Your task to perform on an android device: Open settings Image 0: 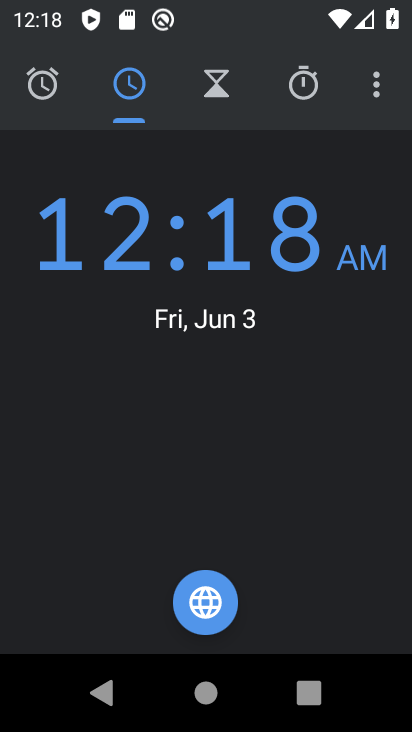
Step 0: press home button
Your task to perform on an android device: Open settings Image 1: 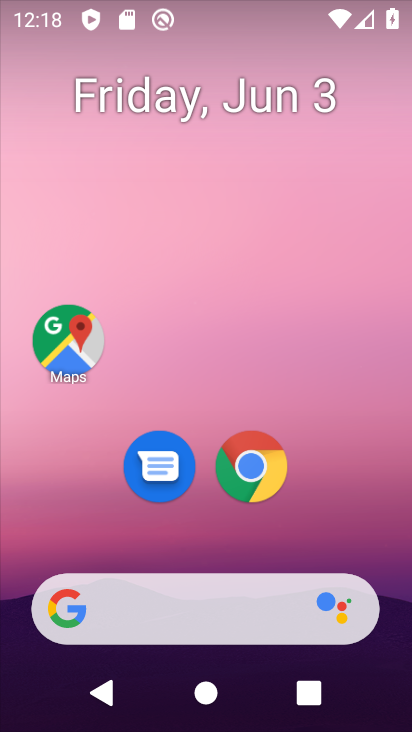
Step 1: drag from (172, 728) to (332, 60)
Your task to perform on an android device: Open settings Image 2: 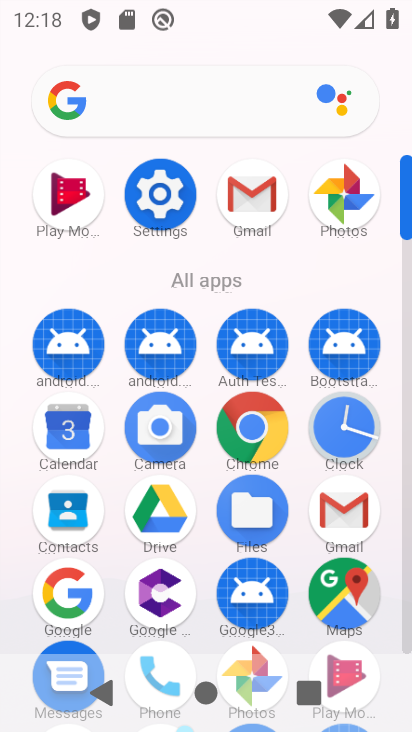
Step 2: click (160, 186)
Your task to perform on an android device: Open settings Image 3: 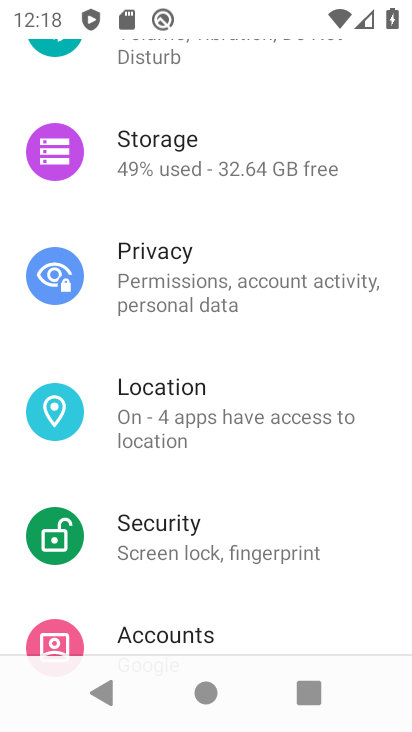
Step 3: task complete